Your task to perform on an android device: turn smart compose on in the gmail app Image 0: 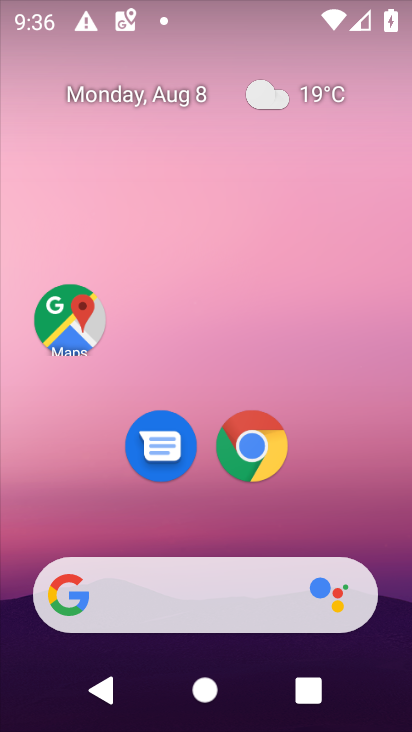
Step 0: drag from (398, 614) to (363, 281)
Your task to perform on an android device: turn smart compose on in the gmail app Image 1: 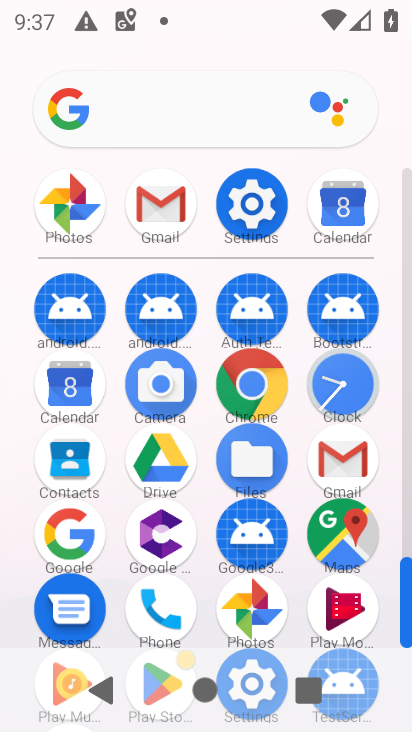
Step 1: click (337, 462)
Your task to perform on an android device: turn smart compose on in the gmail app Image 2: 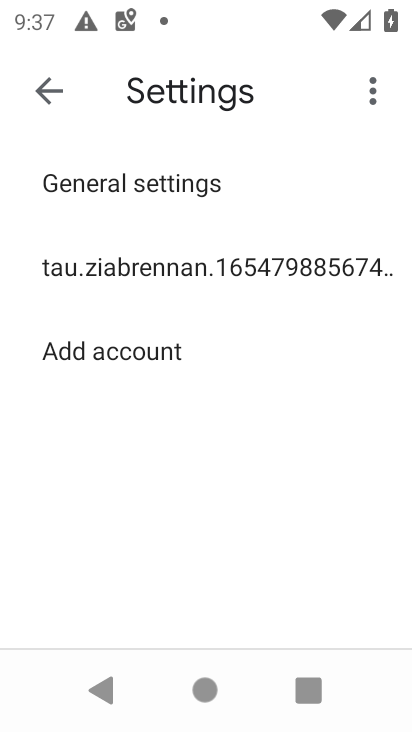
Step 2: click (200, 279)
Your task to perform on an android device: turn smart compose on in the gmail app Image 3: 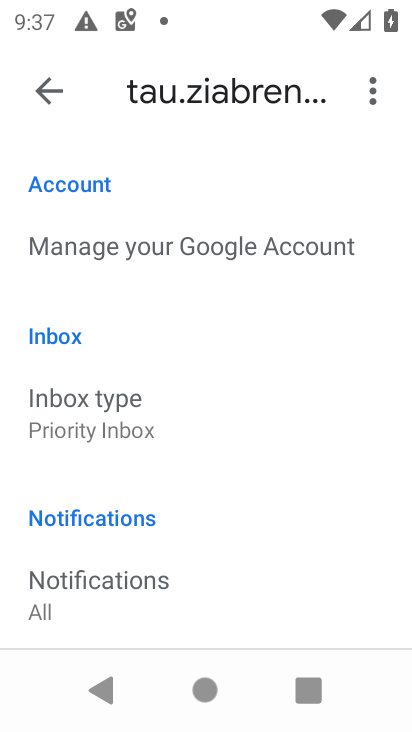
Step 3: task complete